Your task to perform on an android device: Search for energizer triple a on newegg, select the first entry, and add it to the cart. Image 0: 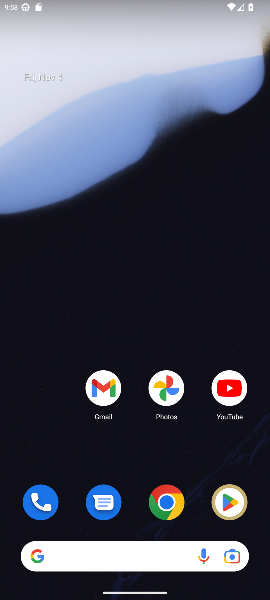
Step 0: click (166, 499)
Your task to perform on an android device: Search for energizer triple a on newegg, select the first entry, and add it to the cart. Image 1: 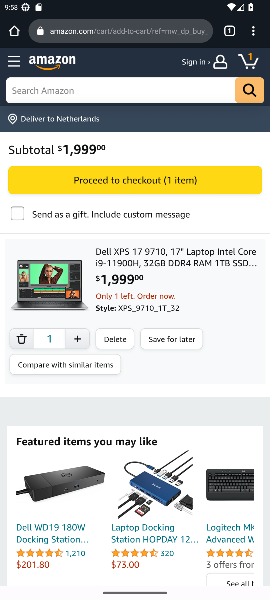
Step 1: click (126, 29)
Your task to perform on an android device: Search for energizer triple a on newegg, select the first entry, and add it to the cart. Image 2: 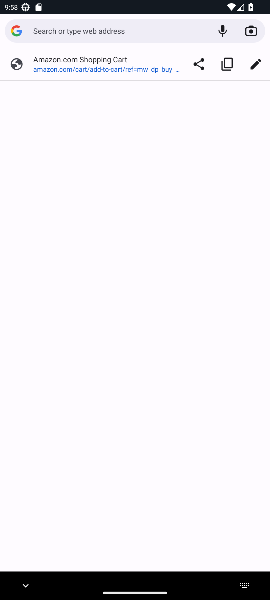
Step 2: type "newegg"
Your task to perform on an android device: Search for energizer triple a on newegg, select the first entry, and add it to the cart. Image 3: 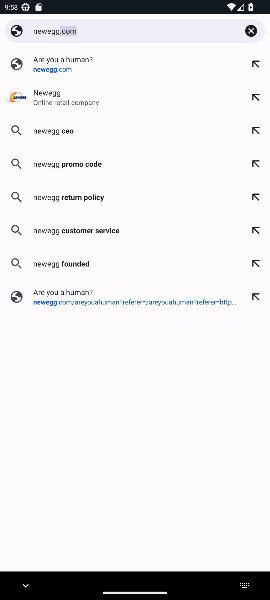
Step 3: click (69, 132)
Your task to perform on an android device: Search for energizer triple a on newegg, select the first entry, and add it to the cart. Image 4: 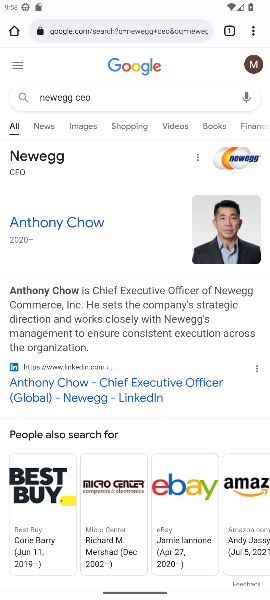
Step 4: press back button
Your task to perform on an android device: Search for energizer triple a on newegg, select the first entry, and add it to the cart. Image 5: 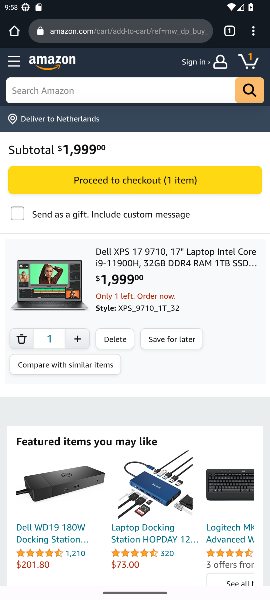
Step 5: click (124, 31)
Your task to perform on an android device: Search for energizer triple a on newegg, select the first entry, and add it to the cart. Image 6: 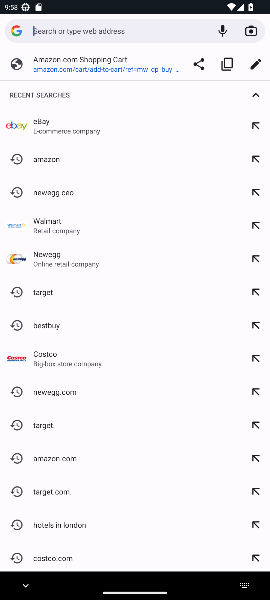
Step 6: type "newegg"
Your task to perform on an android device: Search for energizer triple a on newegg, select the first entry, and add it to the cart. Image 7: 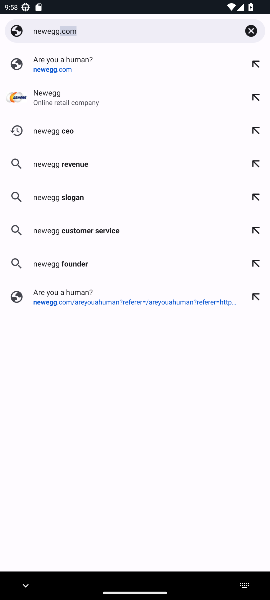
Step 7: click (114, 31)
Your task to perform on an android device: Search for energizer triple a on newegg, select the first entry, and add it to the cart. Image 8: 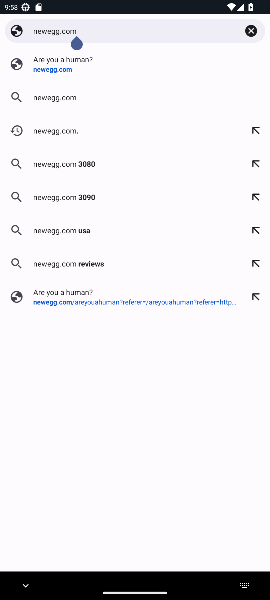
Step 8: click (56, 96)
Your task to perform on an android device: Search for energizer triple a on newegg, select the first entry, and add it to the cart. Image 9: 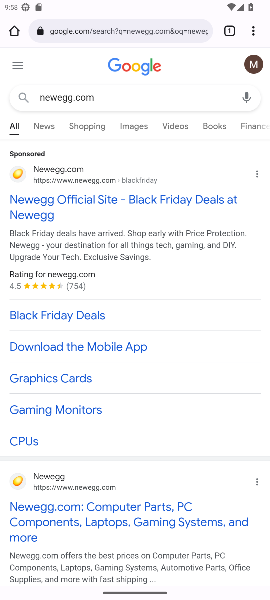
Step 9: click (92, 486)
Your task to perform on an android device: Search for energizer triple a on newegg, select the first entry, and add it to the cart. Image 10: 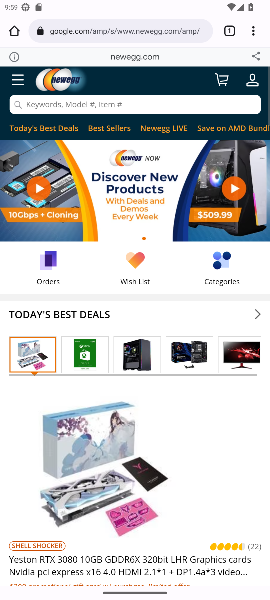
Step 10: click (175, 101)
Your task to perform on an android device: Search for energizer triple a on newegg, select the first entry, and add it to the cart. Image 11: 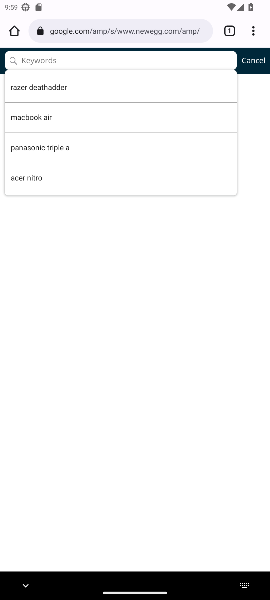
Step 11: type "energizer triple a"
Your task to perform on an android device: Search for energizer triple a on newegg, select the first entry, and add it to the cart. Image 12: 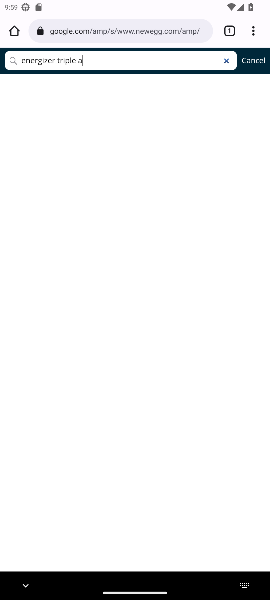
Step 12: click (188, 153)
Your task to perform on an android device: Search for energizer triple a on newegg, select the first entry, and add it to the cart. Image 13: 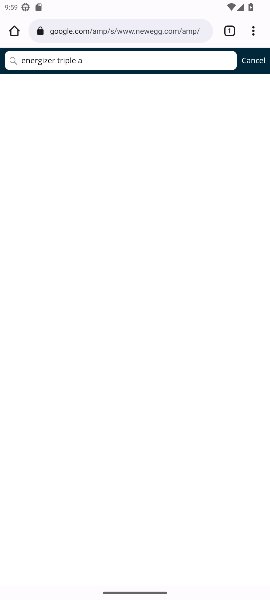
Step 13: task complete